Your task to perform on an android device: turn on improve location accuracy Image 0: 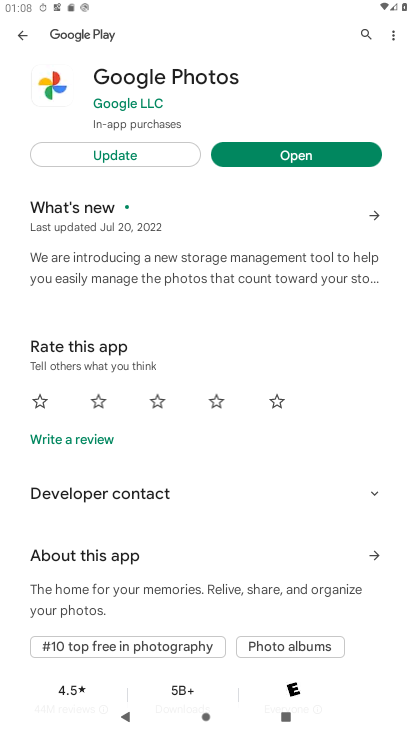
Step 0: press home button
Your task to perform on an android device: turn on improve location accuracy Image 1: 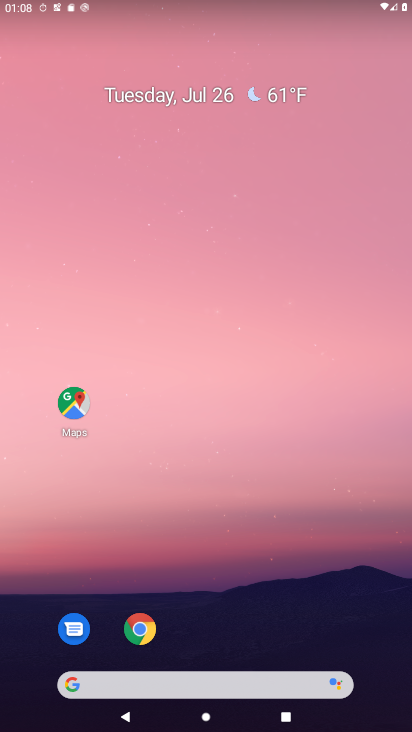
Step 1: drag from (225, 619) to (228, 184)
Your task to perform on an android device: turn on improve location accuracy Image 2: 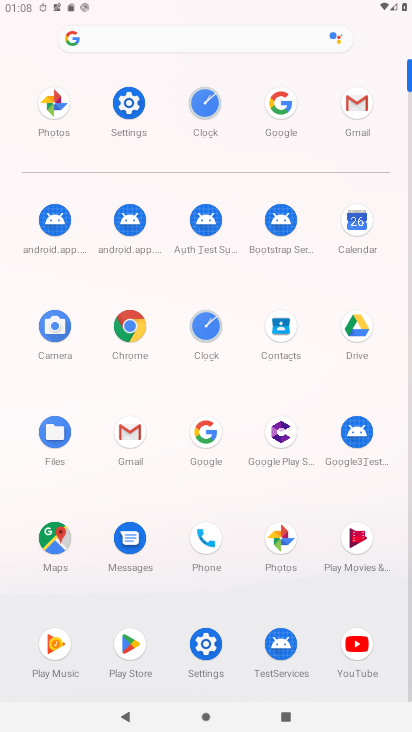
Step 2: click (144, 109)
Your task to perform on an android device: turn on improve location accuracy Image 3: 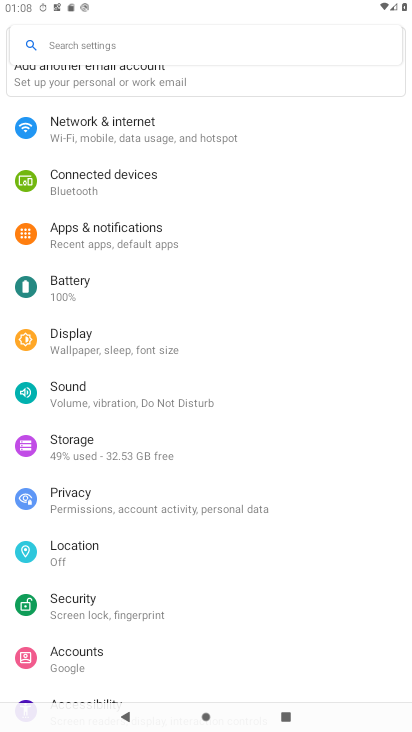
Step 3: click (113, 538)
Your task to perform on an android device: turn on improve location accuracy Image 4: 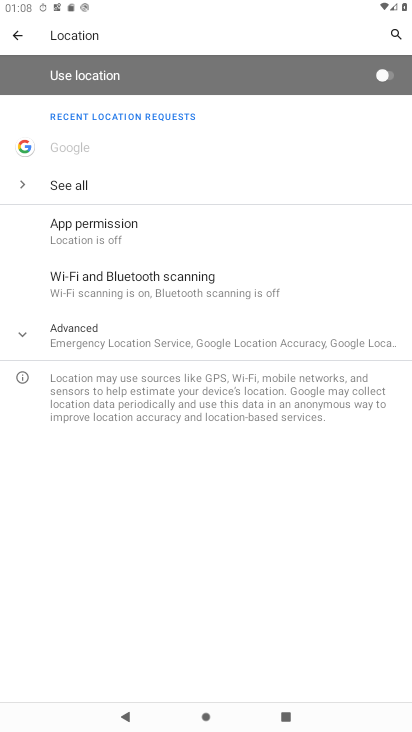
Step 4: click (134, 353)
Your task to perform on an android device: turn on improve location accuracy Image 5: 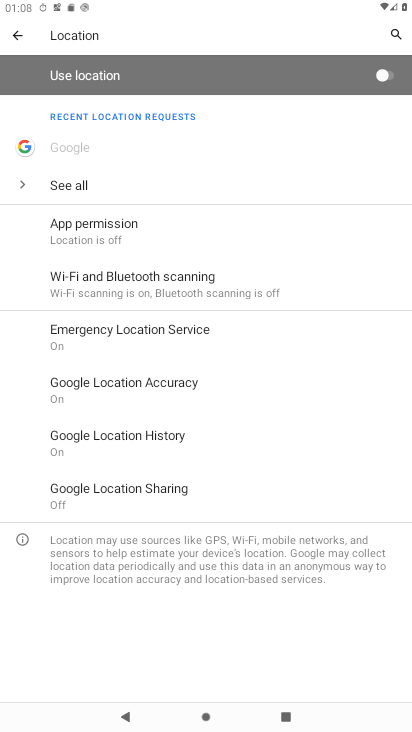
Step 5: click (195, 398)
Your task to perform on an android device: turn on improve location accuracy Image 6: 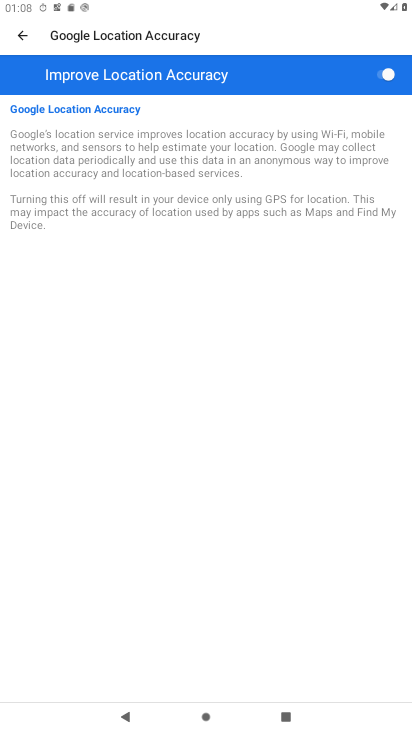
Step 6: task complete